Your task to perform on an android device: turn off javascript in the chrome app Image 0: 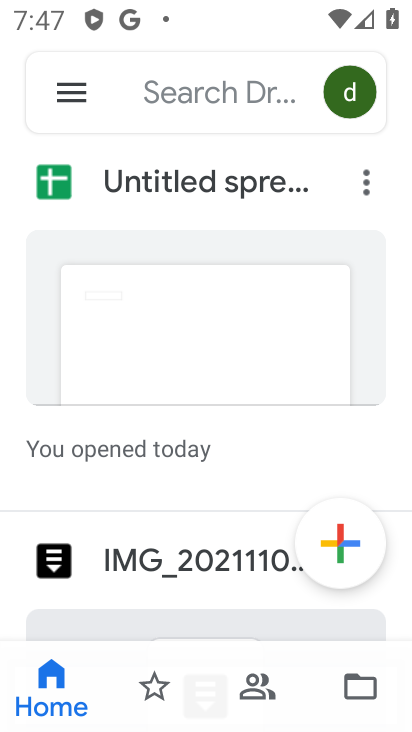
Step 0: press home button
Your task to perform on an android device: turn off javascript in the chrome app Image 1: 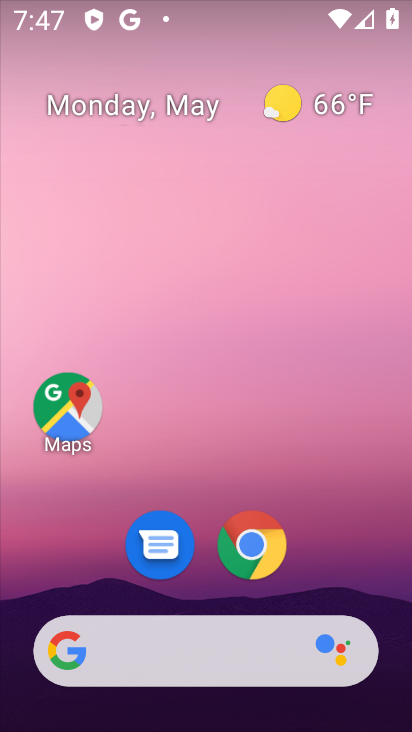
Step 1: click (251, 528)
Your task to perform on an android device: turn off javascript in the chrome app Image 2: 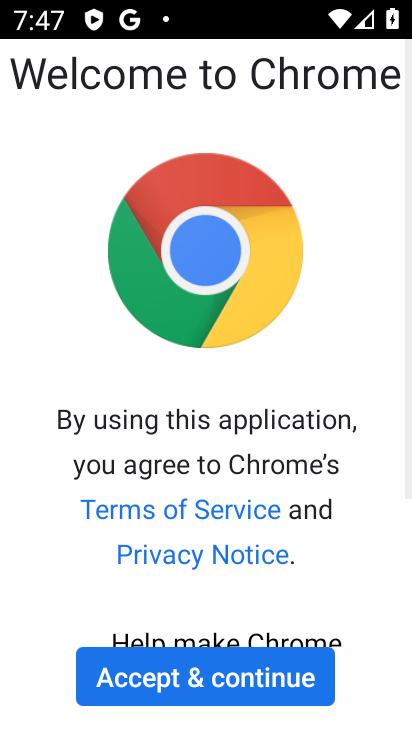
Step 2: click (219, 663)
Your task to perform on an android device: turn off javascript in the chrome app Image 3: 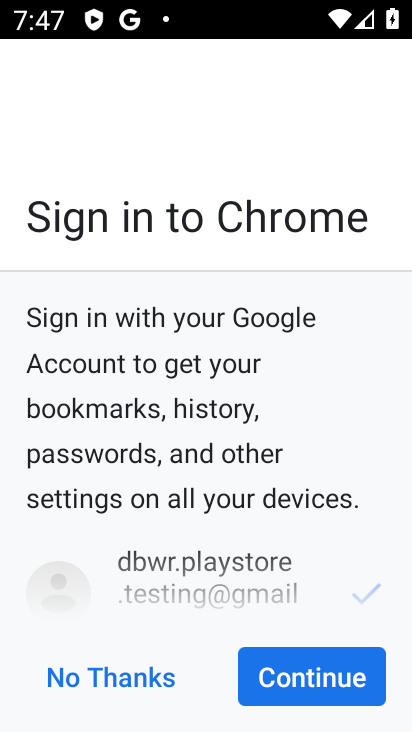
Step 3: click (251, 671)
Your task to perform on an android device: turn off javascript in the chrome app Image 4: 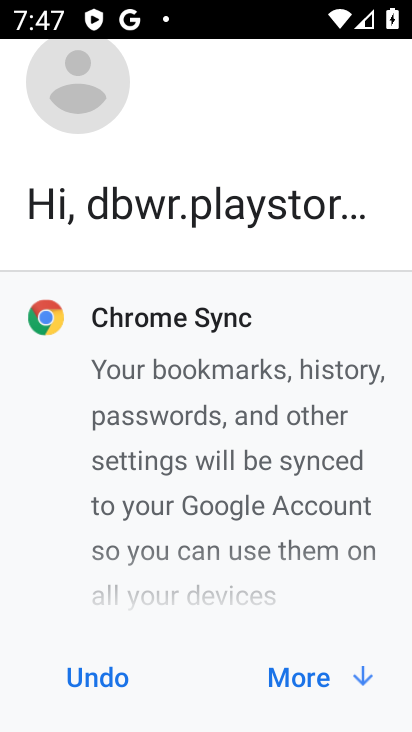
Step 4: click (305, 680)
Your task to perform on an android device: turn off javascript in the chrome app Image 5: 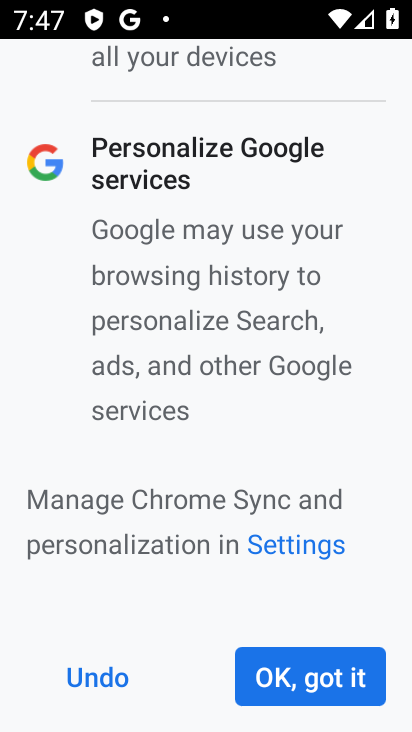
Step 5: click (305, 680)
Your task to perform on an android device: turn off javascript in the chrome app Image 6: 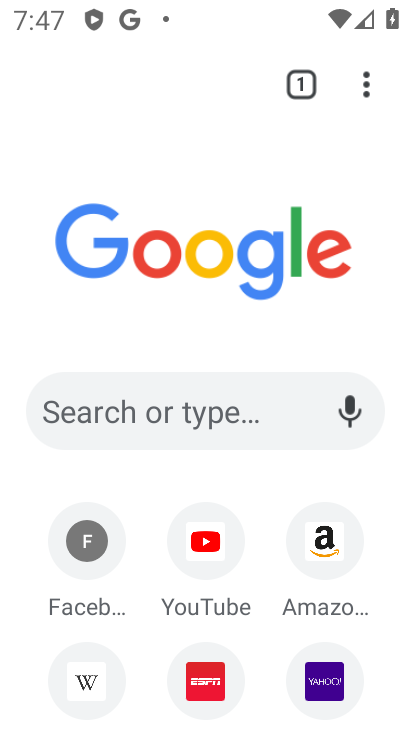
Step 6: drag from (368, 83) to (111, 588)
Your task to perform on an android device: turn off javascript in the chrome app Image 7: 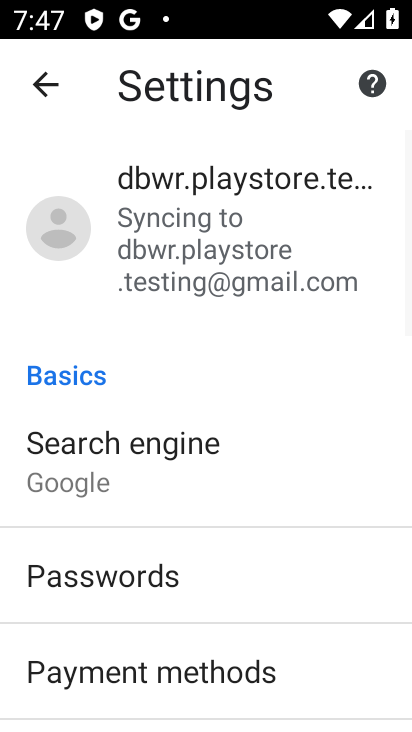
Step 7: drag from (161, 629) to (154, 50)
Your task to perform on an android device: turn off javascript in the chrome app Image 8: 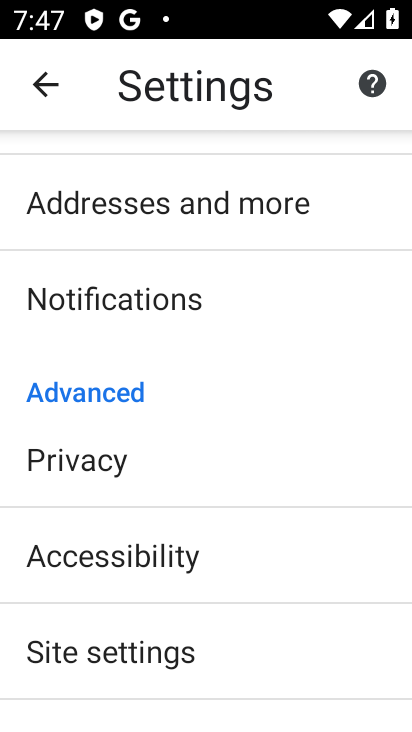
Step 8: click (127, 630)
Your task to perform on an android device: turn off javascript in the chrome app Image 9: 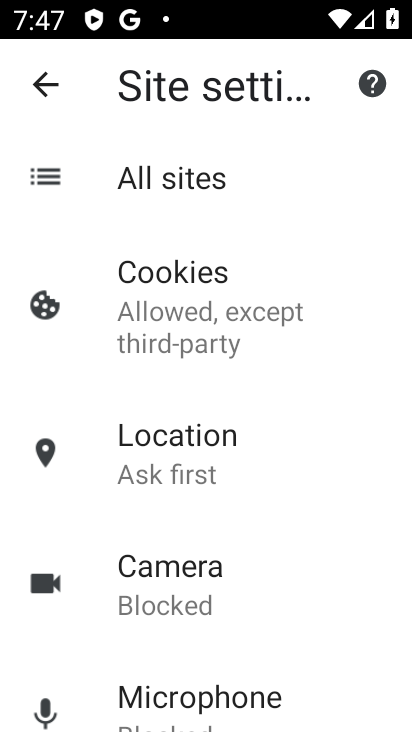
Step 9: drag from (214, 569) to (164, 19)
Your task to perform on an android device: turn off javascript in the chrome app Image 10: 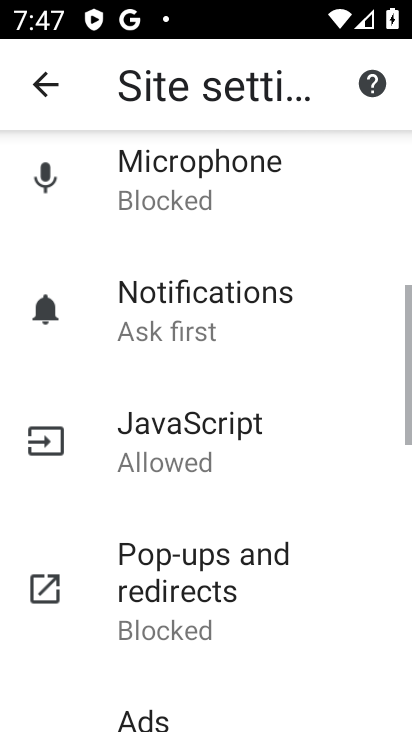
Step 10: click (175, 393)
Your task to perform on an android device: turn off javascript in the chrome app Image 11: 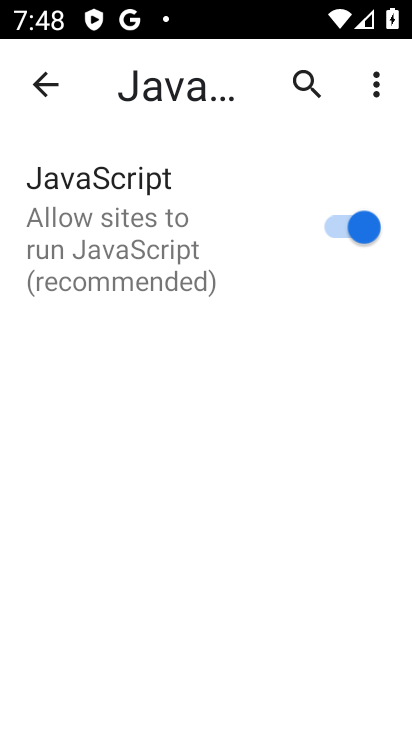
Step 11: click (348, 226)
Your task to perform on an android device: turn off javascript in the chrome app Image 12: 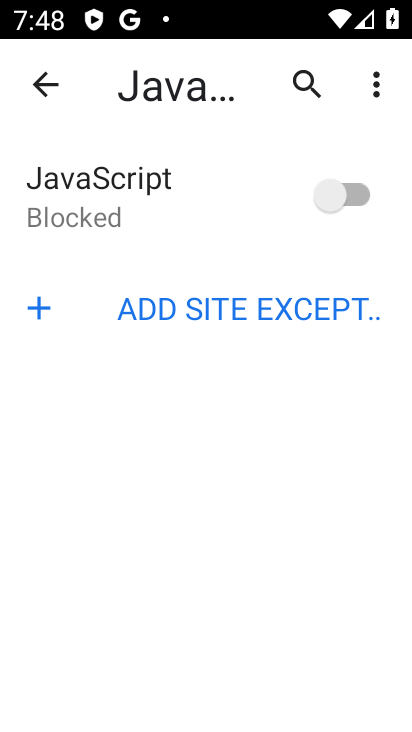
Step 12: task complete